Your task to perform on an android device: find which apps use the phone's location Image 0: 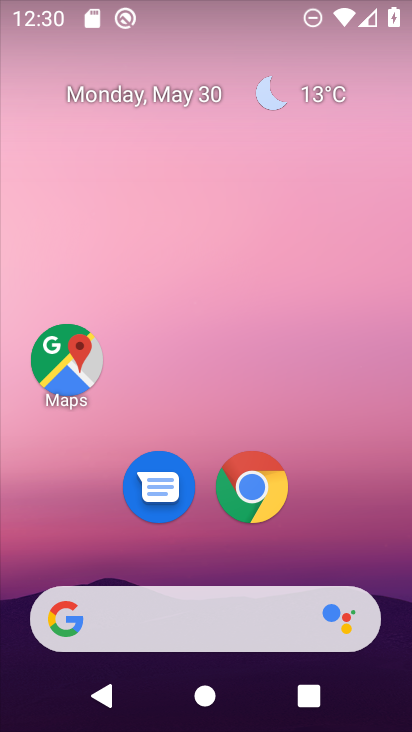
Step 0: drag from (388, 715) to (350, 201)
Your task to perform on an android device: find which apps use the phone's location Image 1: 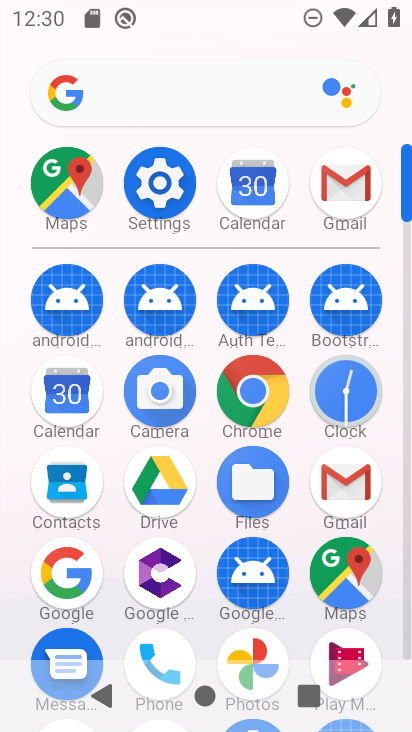
Step 1: click (145, 187)
Your task to perform on an android device: find which apps use the phone's location Image 2: 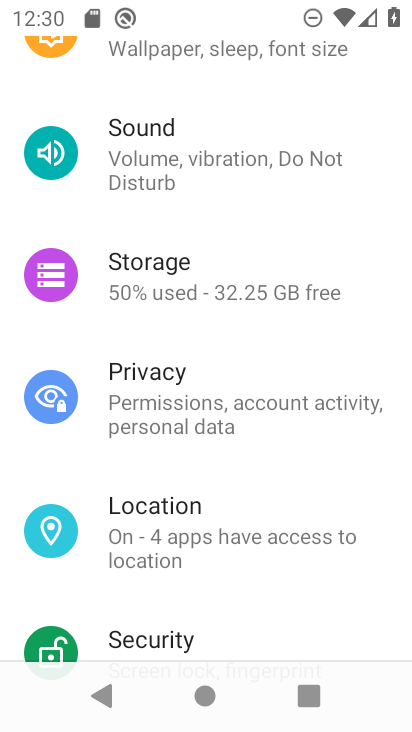
Step 2: click (180, 533)
Your task to perform on an android device: find which apps use the phone's location Image 3: 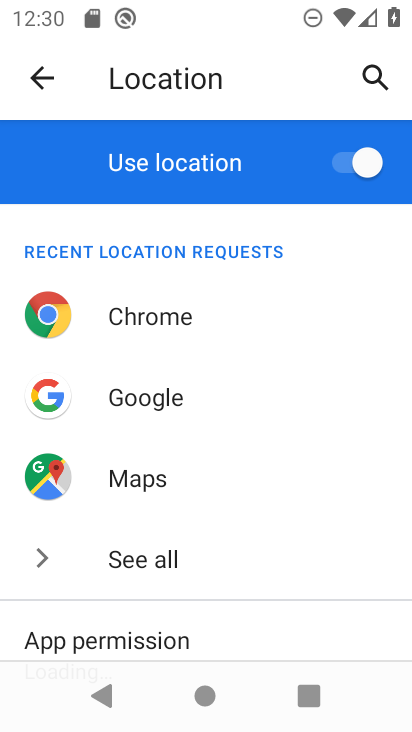
Step 3: drag from (281, 619) to (325, 183)
Your task to perform on an android device: find which apps use the phone's location Image 4: 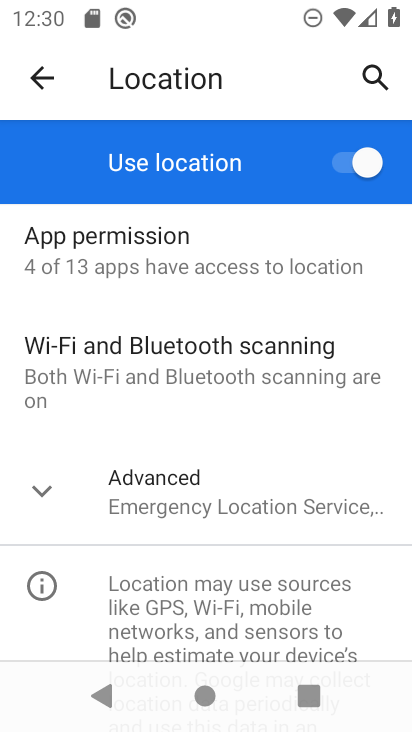
Step 4: click (37, 491)
Your task to perform on an android device: find which apps use the phone's location Image 5: 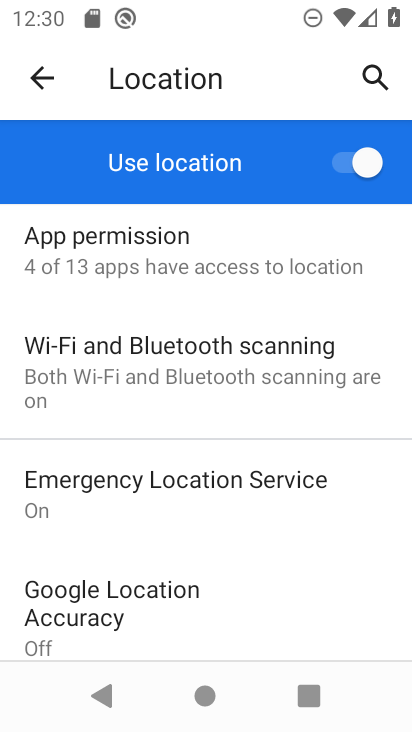
Step 5: drag from (217, 625) to (244, 378)
Your task to perform on an android device: find which apps use the phone's location Image 6: 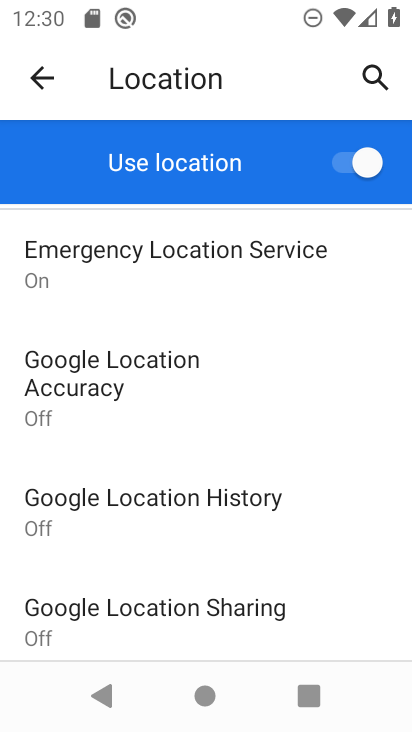
Step 6: drag from (225, 321) to (235, 600)
Your task to perform on an android device: find which apps use the phone's location Image 7: 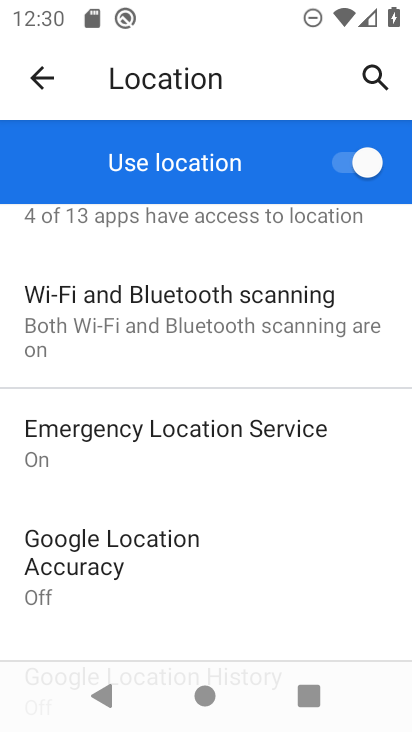
Step 7: drag from (196, 386) to (198, 656)
Your task to perform on an android device: find which apps use the phone's location Image 8: 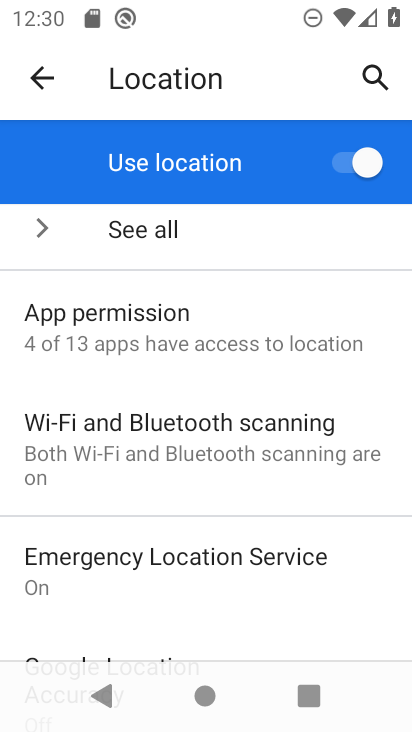
Step 8: drag from (225, 225) to (250, 631)
Your task to perform on an android device: find which apps use the phone's location Image 9: 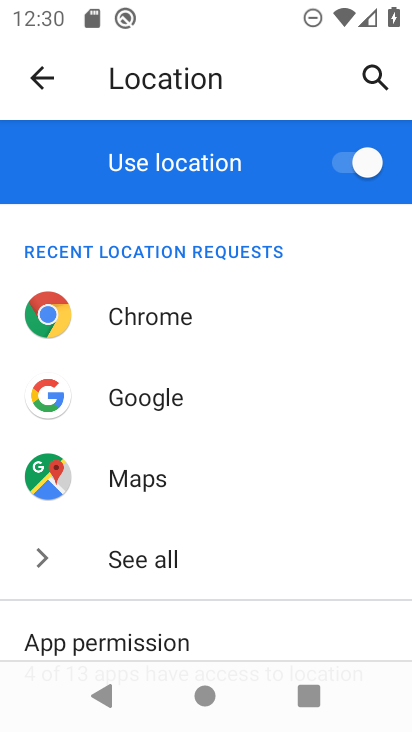
Step 9: drag from (228, 618) to (267, 332)
Your task to perform on an android device: find which apps use the phone's location Image 10: 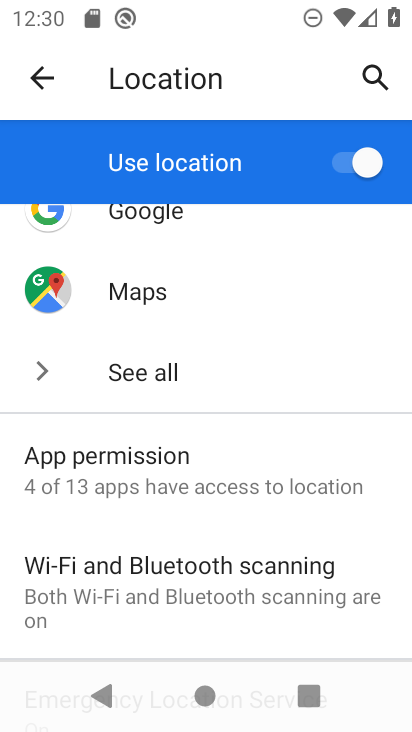
Step 10: click (90, 466)
Your task to perform on an android device: find which apps use the phone's location Image 11: 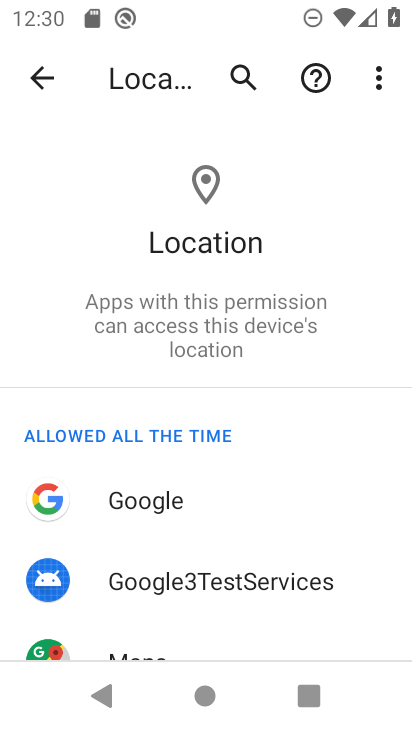
Step 11: task complete